Your task to perform on an android device: snooze an email in the gmail app Image 0: 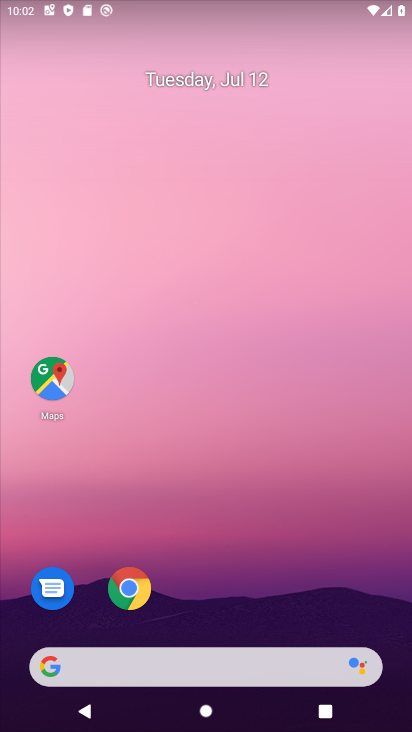
Step 0: drag from (214, 651) to (288, 182)
Your task to perform on an android device: snooze an email in the gmail app Image 1: 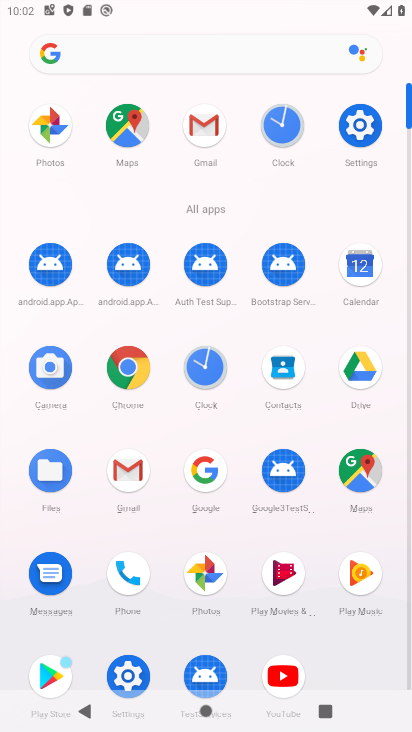
Step 1: click (125, 475)
Your task to perform on an android device: snooze an email in the gmail app Image 2: 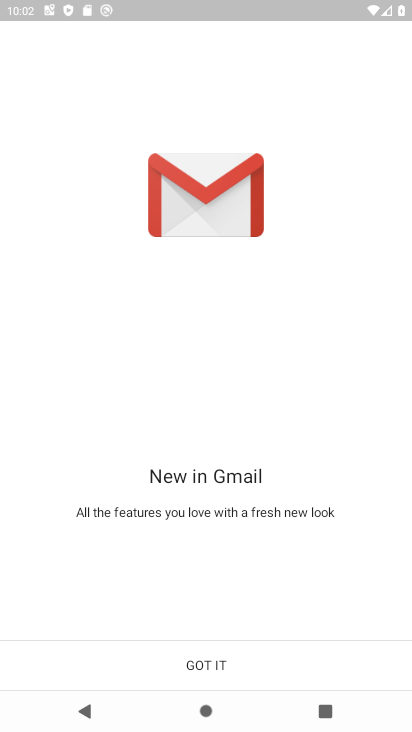
Step 2: click (209, 668)
Your task to perform on an android device: snooze an email in the gmail app Image 3: 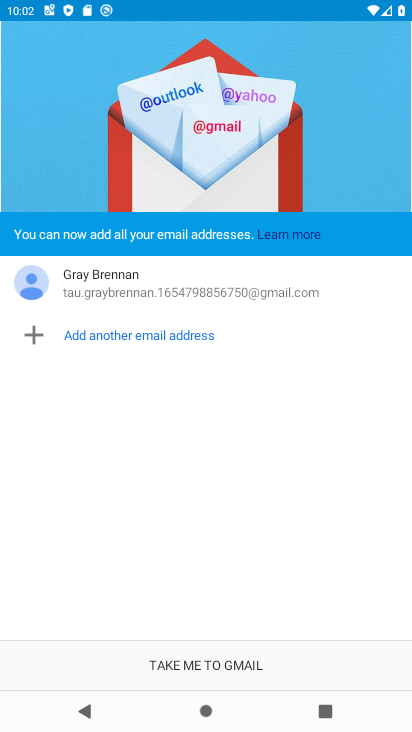
Step 3: click (215, 671)
Your task to perform on an android device: snooze an email in the gmail app Image 4: 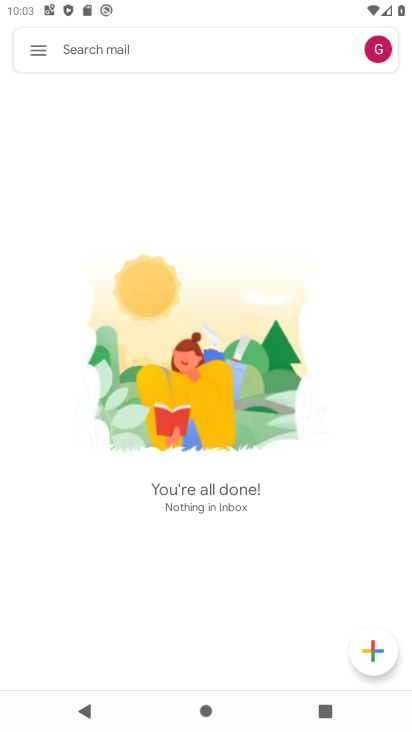
Step 4: task complete